Your task to perform on an android device: Clear all items from cart on ebay. Add "logitech g pro" to the cart on ebay, then select checkout. Image 0: 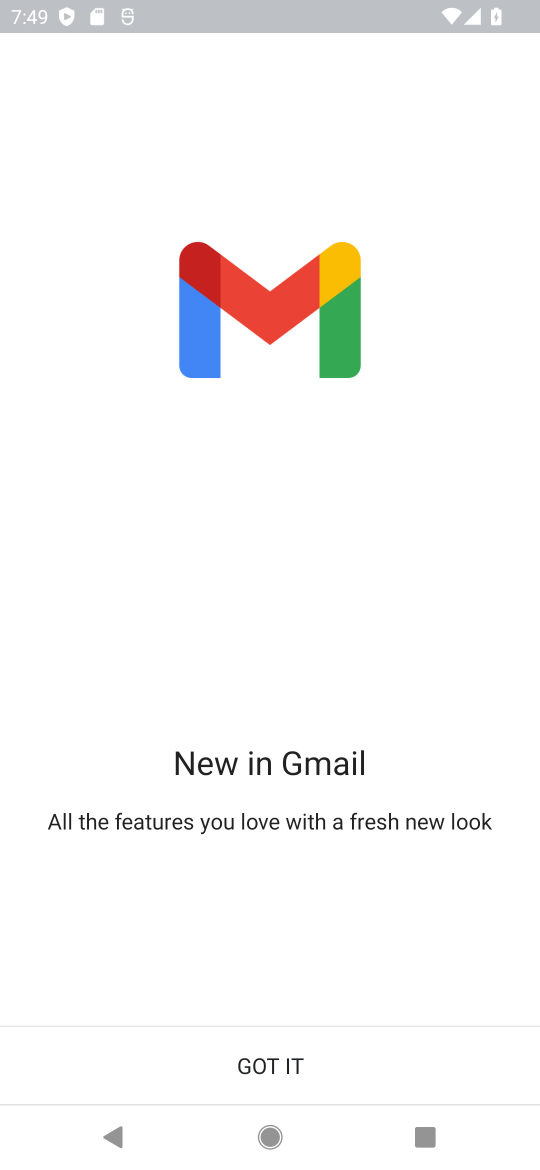
Step 0: press home button
Your task to perform on an android device: Clear all items from cart on ebay. Add "logitech g pro" to the cart on ebay, then select checkout. Image 1: 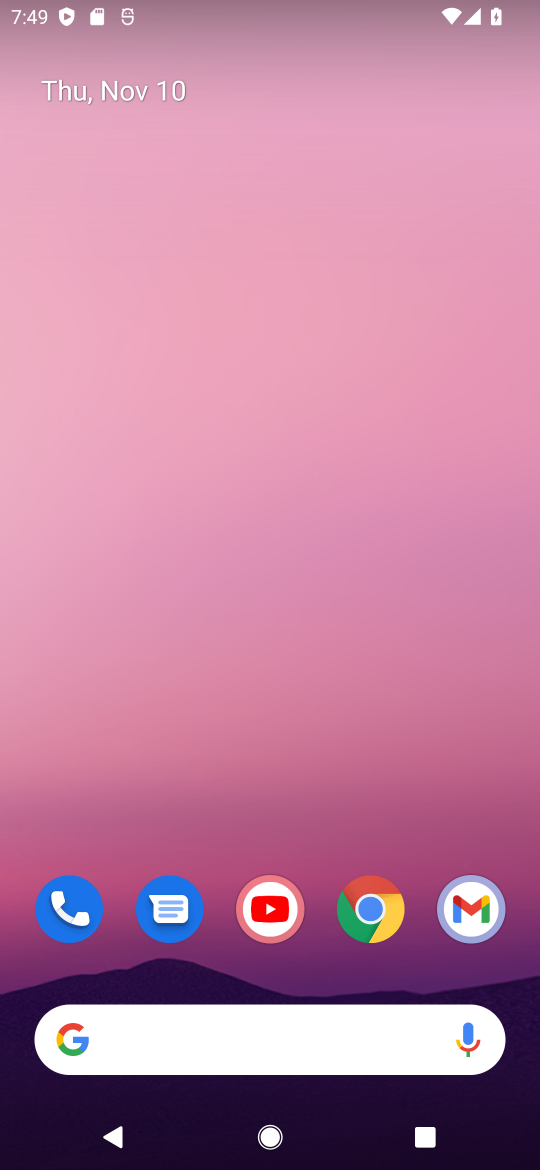
Step 1: drag from (272, 635) to (304, 278)
Your task to perform on an android device: Clear all items from cart on ebay. Add "logitech g pro" to the cart on ebay, then select checkout. Image 2: 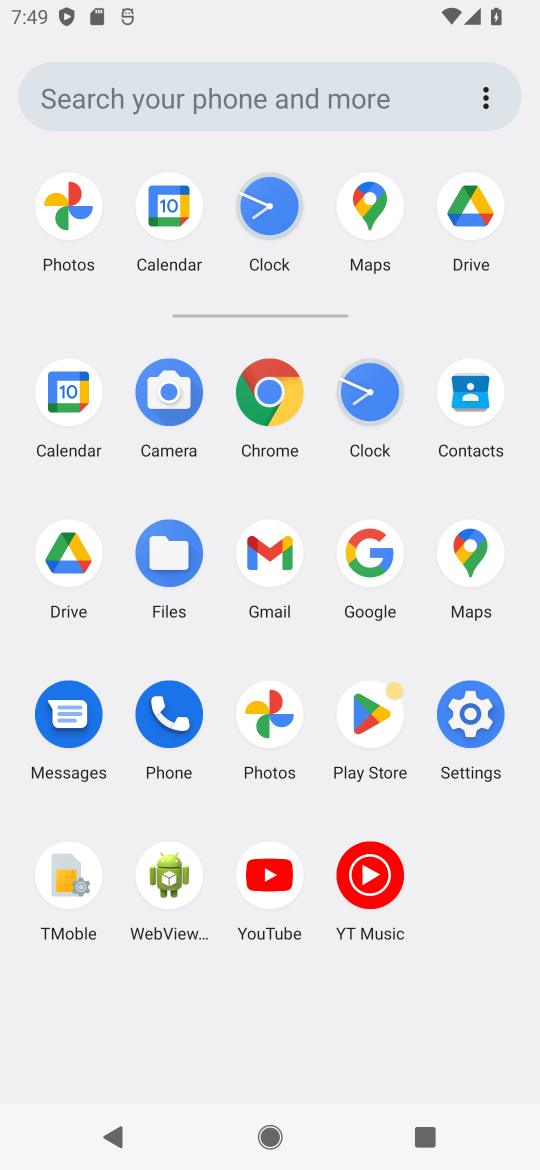
Step 2: click (375, 534)
Your task to perform on an android device: Clear all items from cart on ebay. Add "logitech g pro" to the cart on ebay, then select checkout. Image 3: 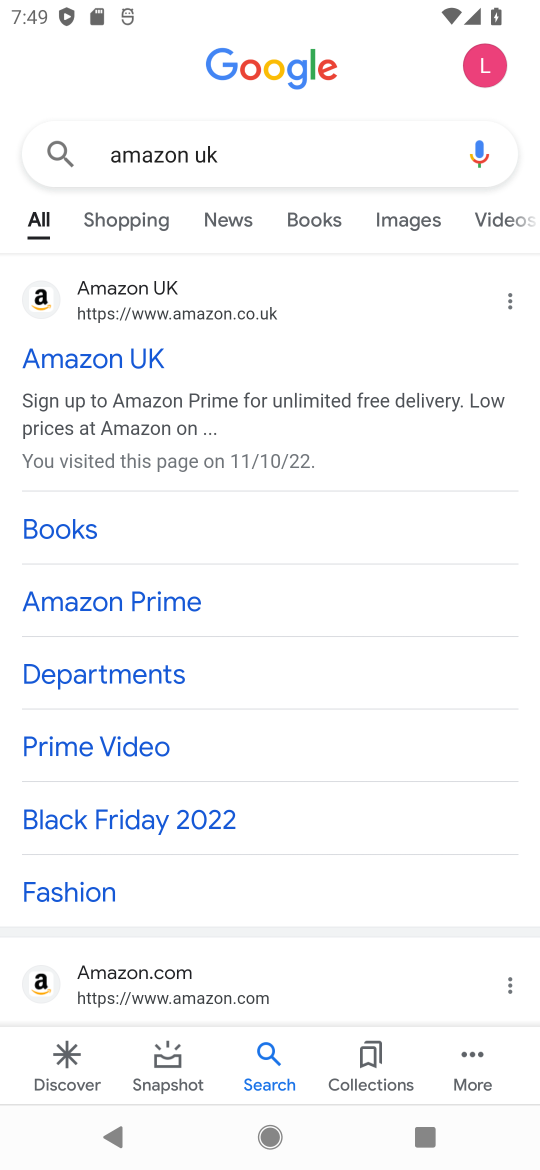
Step 3: click (272, 149)
Your task to perform on an android device: Clear all items from cart on ebay. Add "logitech g pro" to the cart on ebay, then select checkout. Image 4: 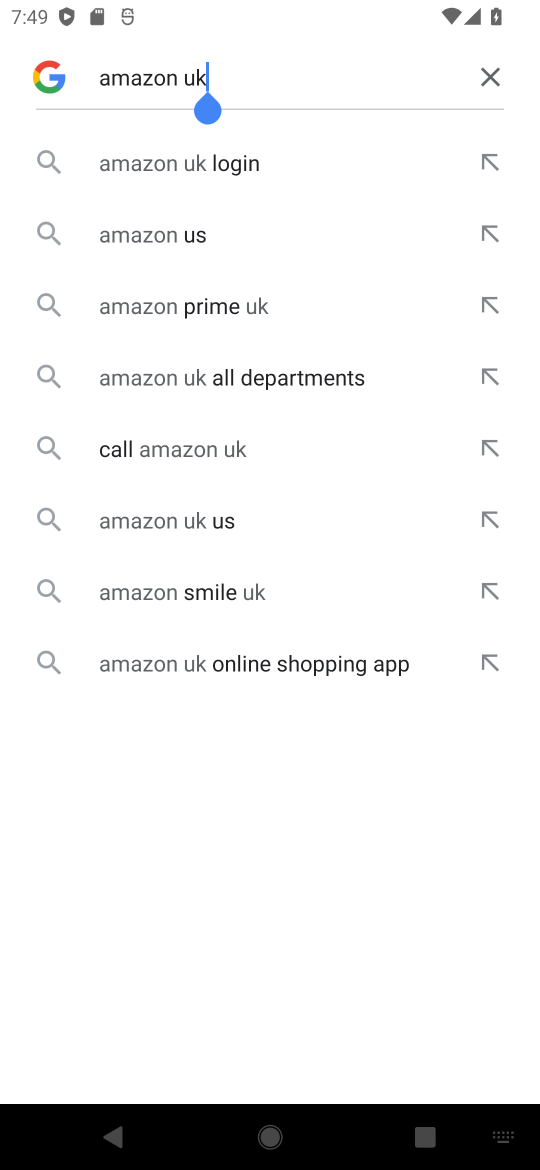
Step 4: click (495, 69)
Your task to perform on an android device: Clear all items from cart on ebay. Add "logitech g pro" to the cart on ebay, then select checkout. Image 5: 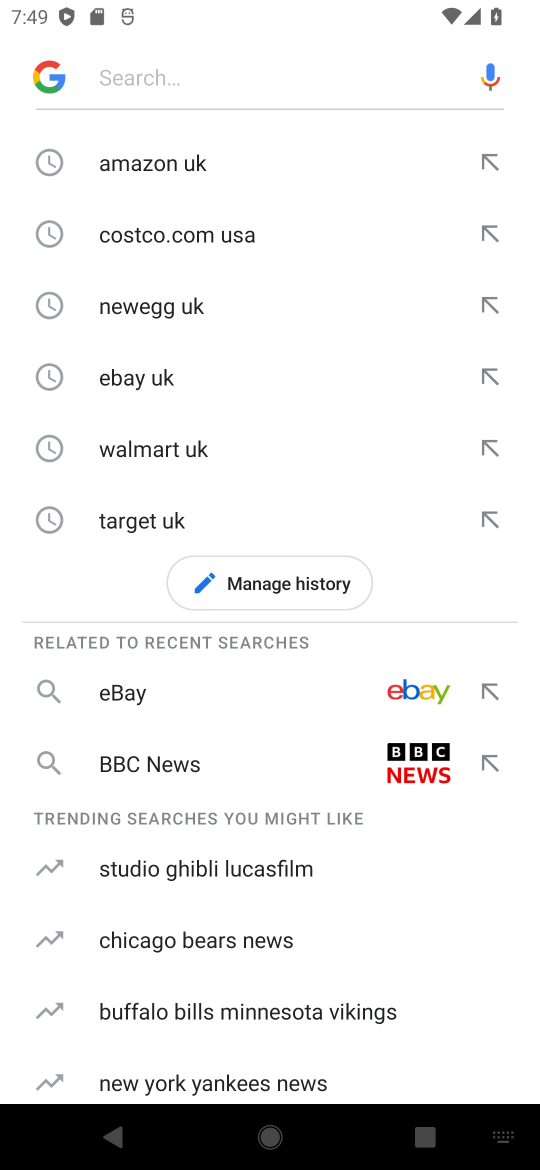
Step 5: click (121, 370)
Your task to perform on an android device: Clear all items from cart on ebay. Add "logitech g pro" to the cart on ebay, then select checkout. Image 6: 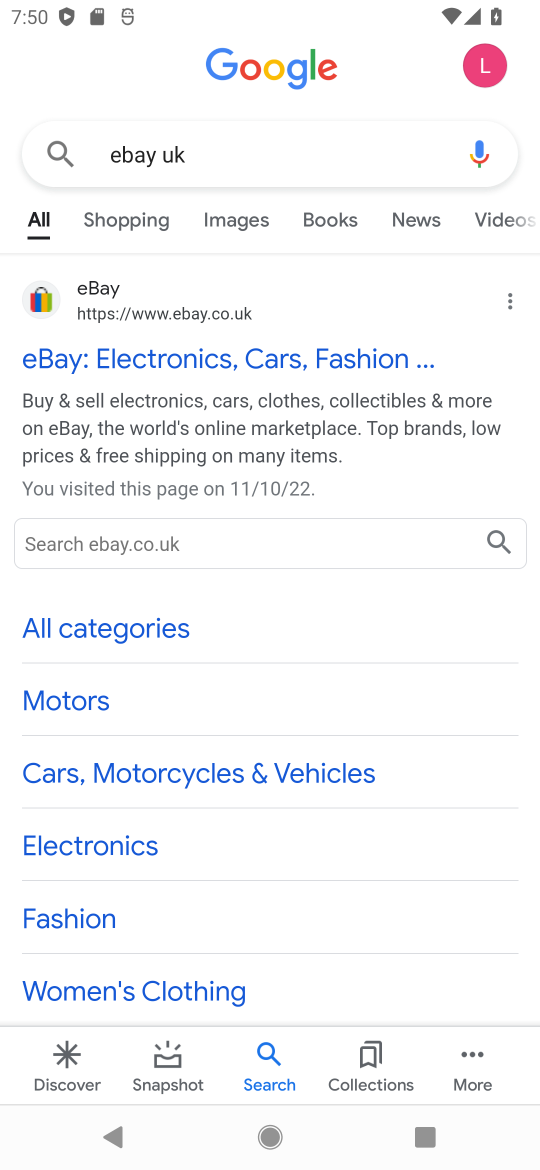
Step 6: click (46, 298)
Your task to perform on an android device: Clear all items from cart on ebay. Add "logitech g pro" to the cart on ebay, then select checkout. Image 7: 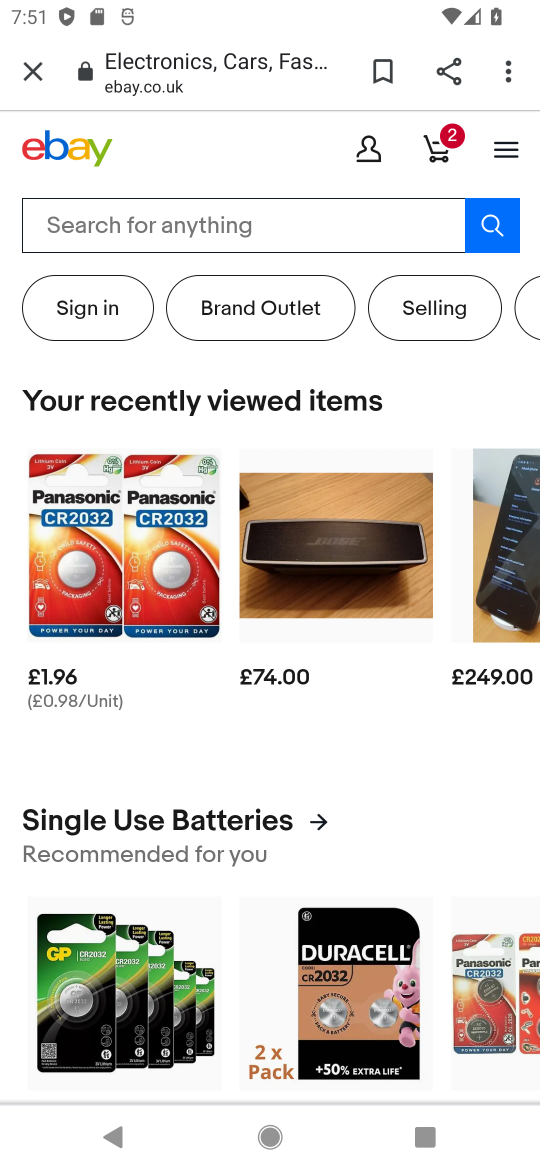
Step 7: click (156, 222)
Your task to perform on an android device: Clear all items from cart on ebay. Add "logitech g pro" to the cart on ebay, then select checkout. Image 8: 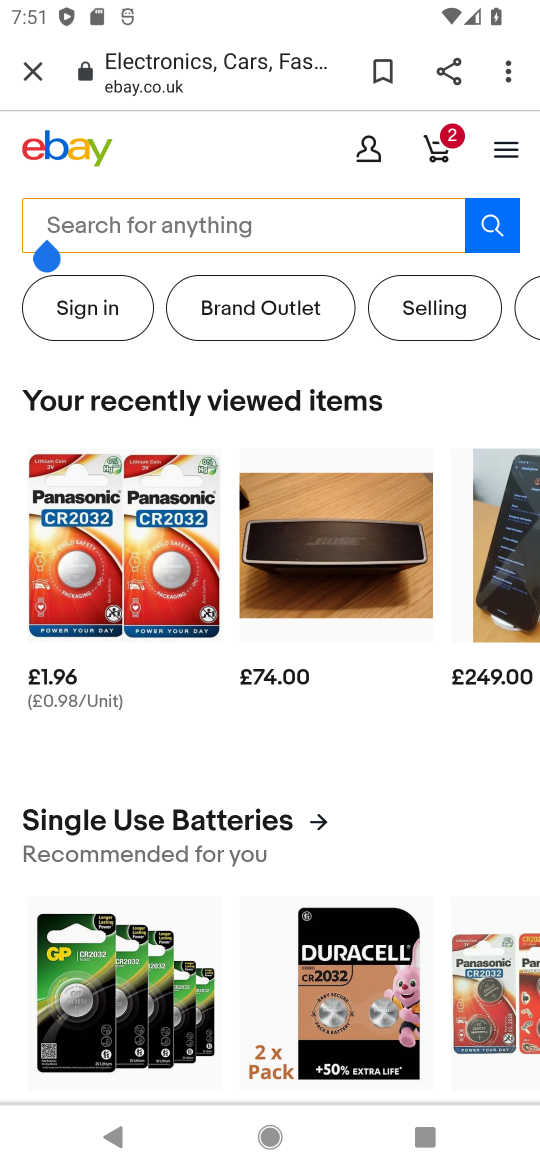
Step 8: click (203, 216)
Your task to perform on an android device: Clear all items from cart on ebay. Add "logitech g pro" to the cart on ebay, then select checkout. Image 9: 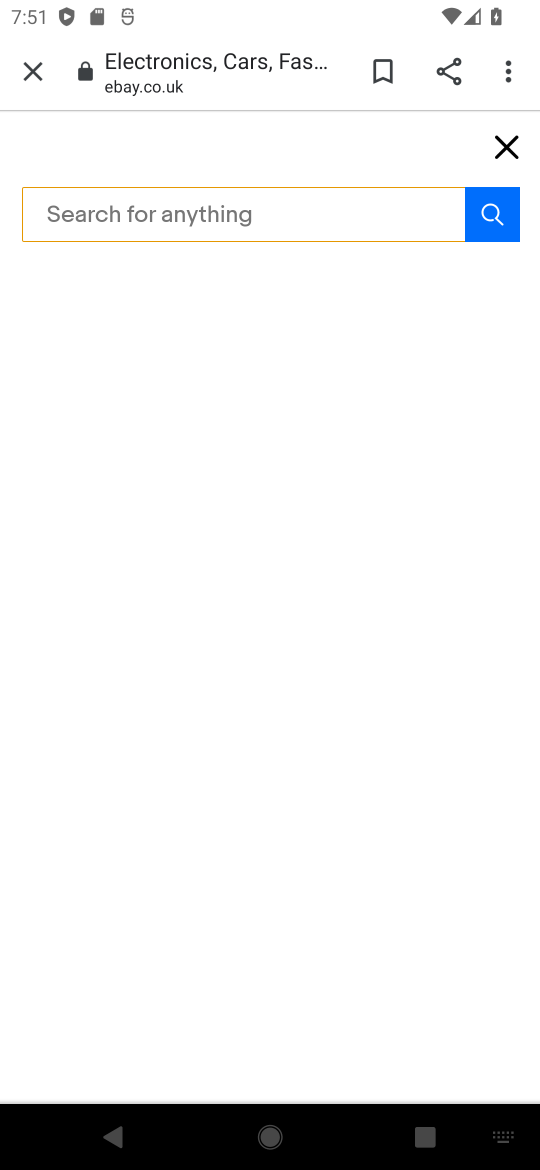
Step 9: type "logitech g pro "
Your task to perform on an android device: Clear all items from cart on ebay. Add "logitech g pro" to the cart on ebay, then select checkout. Image 10: 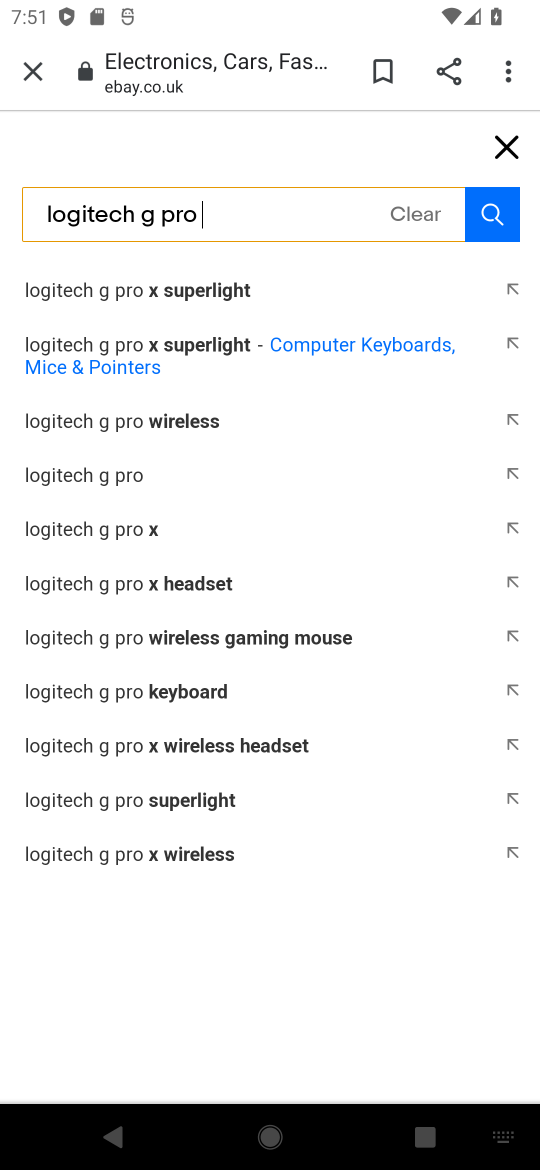
Step 10: click (105, 280)
Your task to perform on an android device: Clear all items from cart on ebay. Add "logitech g pro" to the cart on ebay, then select checkout. Image 11: 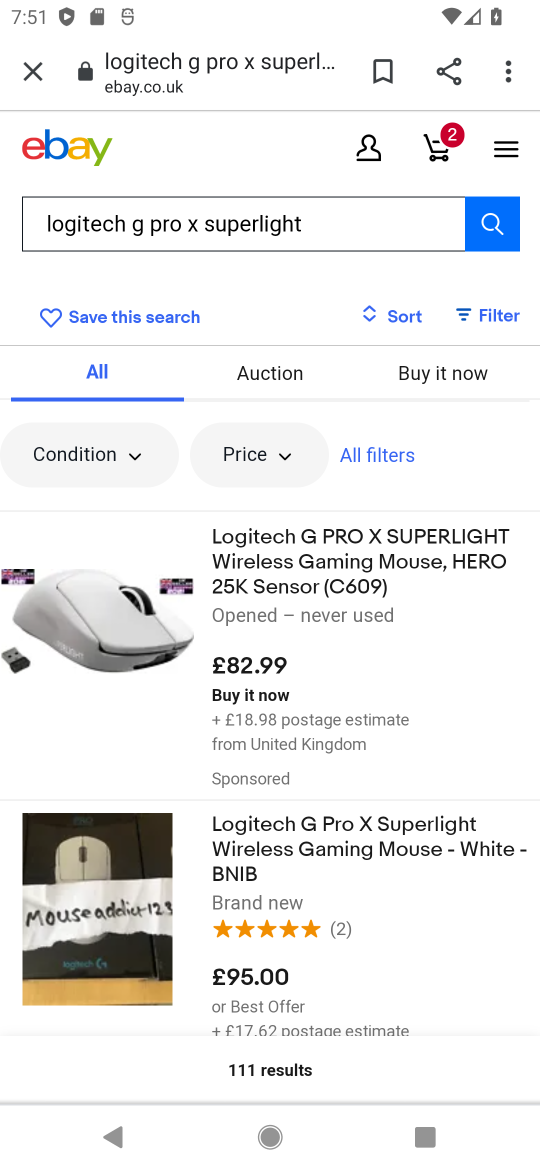
Step 11: click (282, 534)
Your task to perform on an android device: Clear all items from cart on ebay. Add "logitech g pro" to the cart on ebay, then select checkout. Image 12: 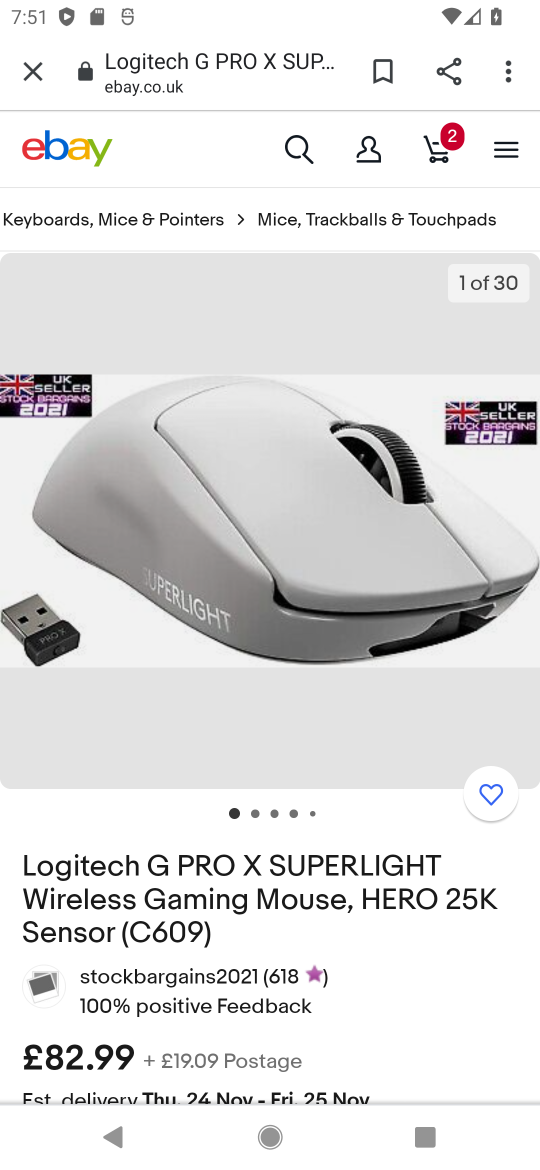
Step 12: drag from (297, 956) to (351, 366)
Your task to perform on an android device: Clear all items from cart on ebay. Add "logitech g pro" to the cart on ebay, then select checkout. Image 13: 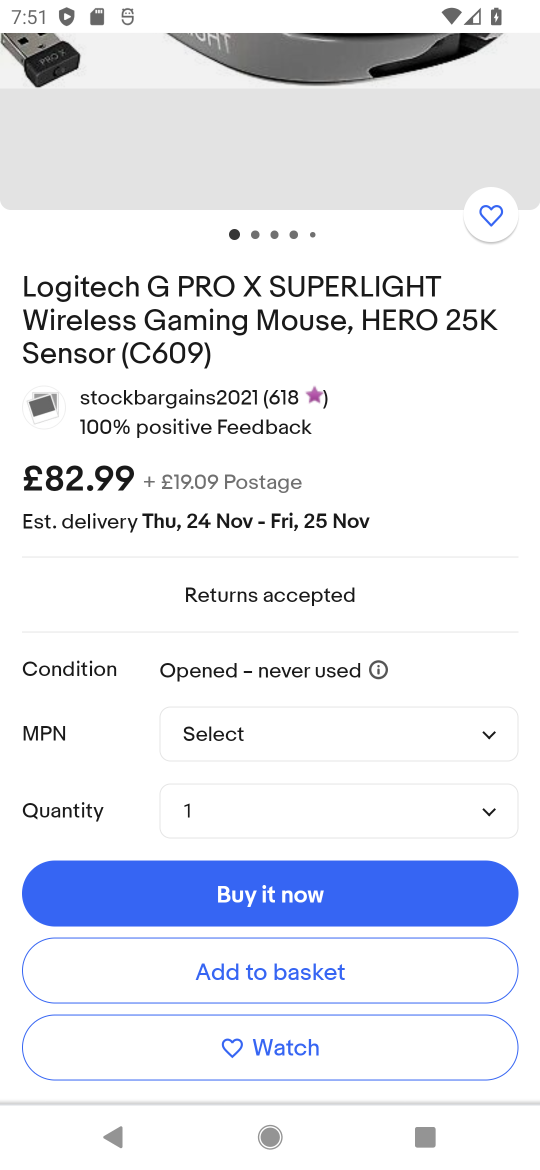
Step 13: click (259, 966)
Your task to perform on an android device: Clear all items from cart on ebay. Add "logitech g pro" to the cart on ebay, then select checkout. Image 14: 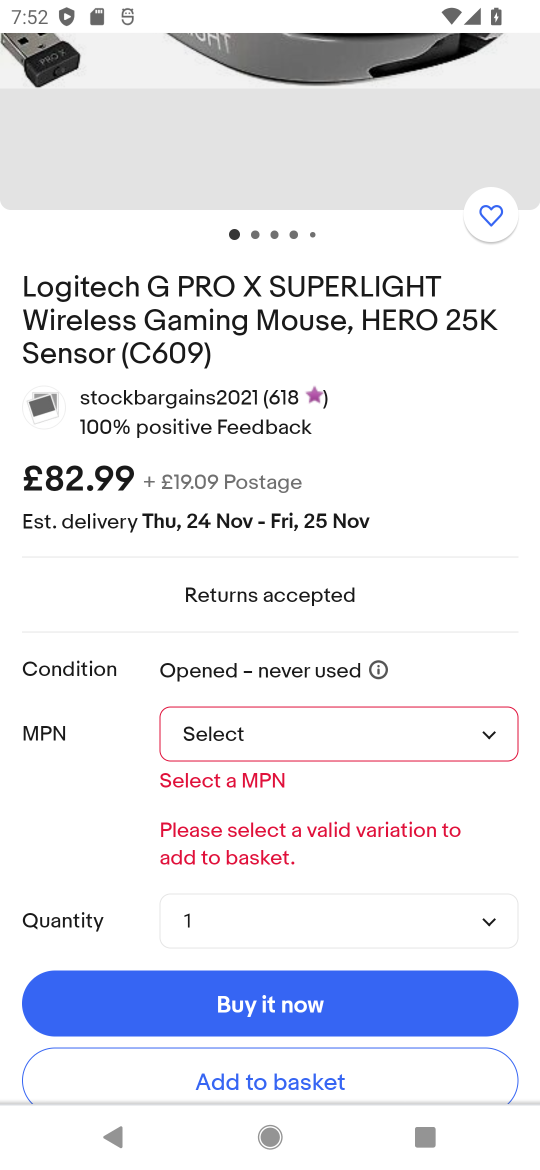
Step 14: task complete